Your task to perform on an android device: add a contact in the contacts app Image 0: 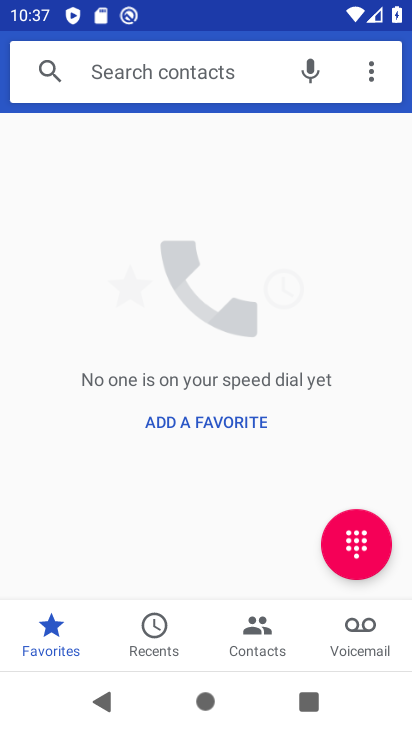
Step 0: press home button
Your task to perform on an android device: add a contact in the contacts app Image 1: 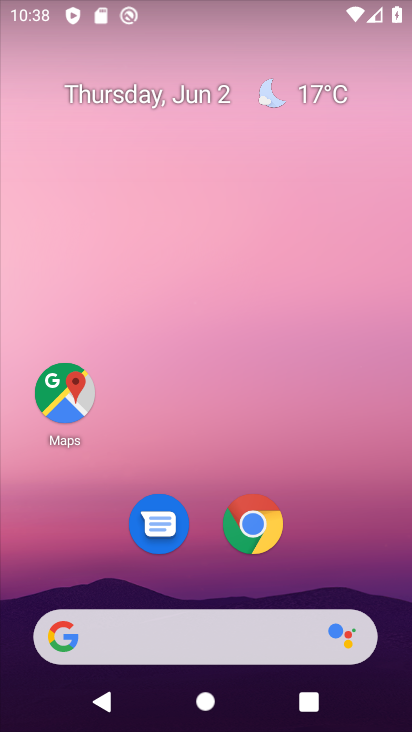
Step 1: drag from (238, 438) to (281, 0)
Your task to perform on an android device: add a contact in the contacts app Image 2: 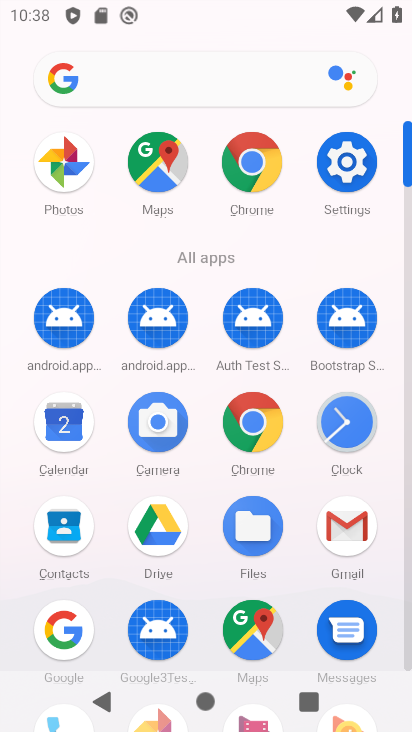
Step 2: click (76, 522)
Your task to perform on an android device: add a contact in the contacts app Image 3: 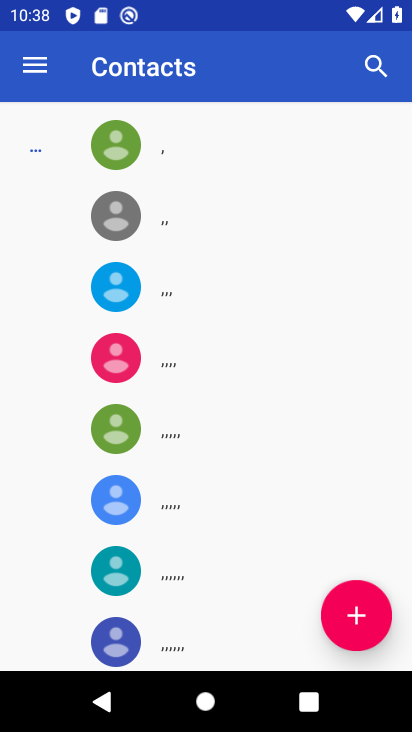
Step 3: click (356, 612)
Your task to perform on an android device: add a contact in the contacts app Image 4: 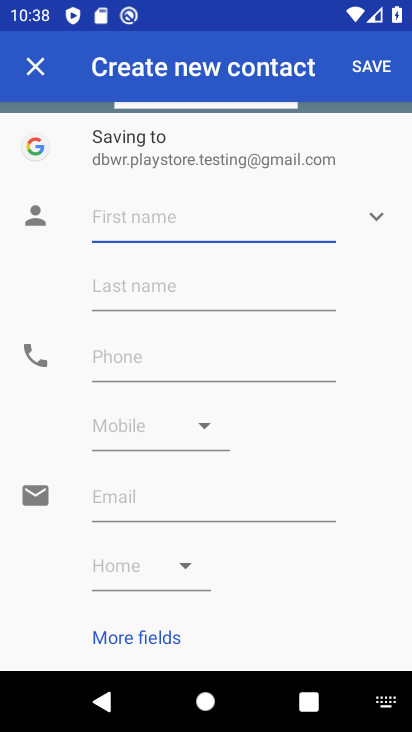
Step 4: type "Madan Mohan Malviya"
Your task to perform on an android device: add a contact in the contacts app Image 5: 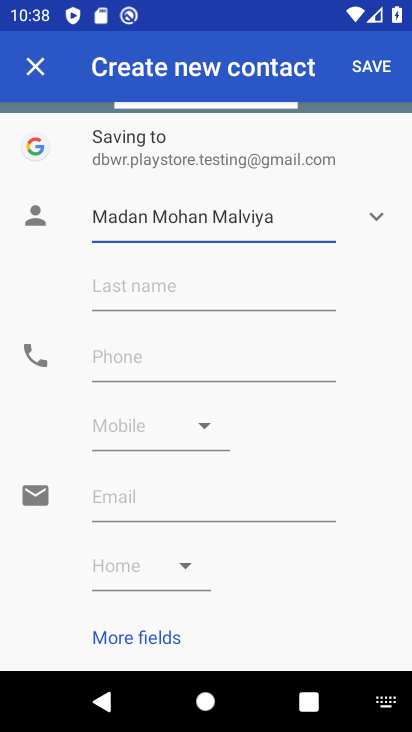
Step 5: click (284, 369)
Your task to perform on an android device: add a contact in the contacts app Image 6: 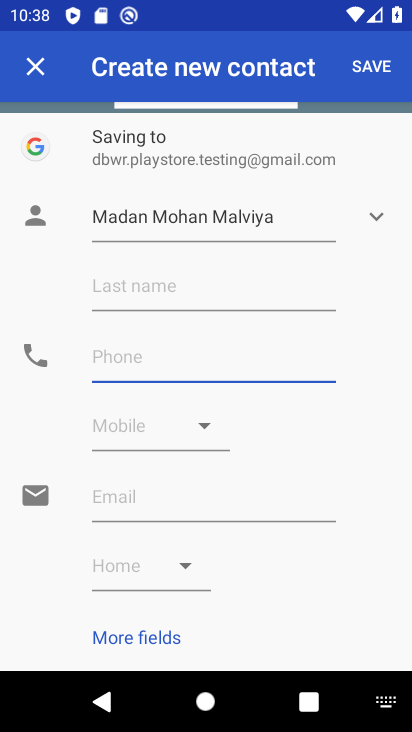
Step 6: type "011233445566"
Your task to perform on an android device: add a contact in the contacts app Image 7: 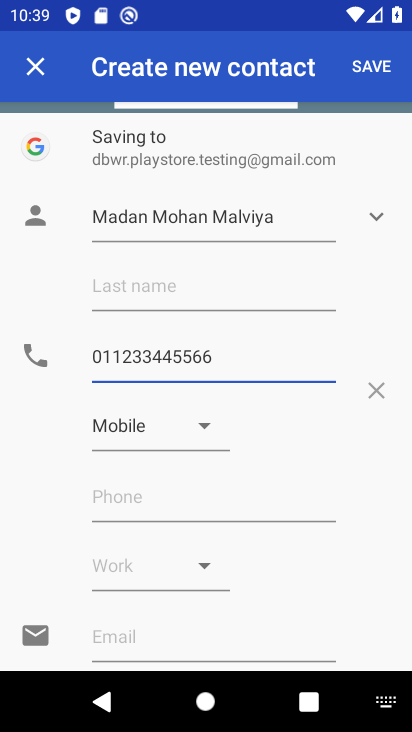
Step 7: click (372, 65)
Your task to perform on an android device: add a contact in the contacts app Image 8: 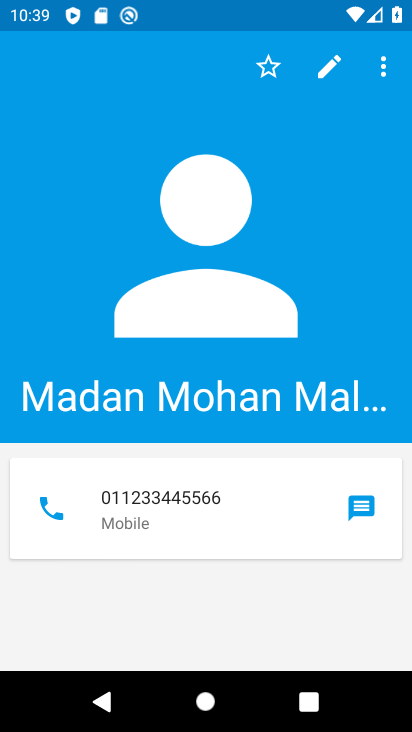
Step 8: task complete